Your task to perform on an android device: set default search engine in the chrome app Image 0: 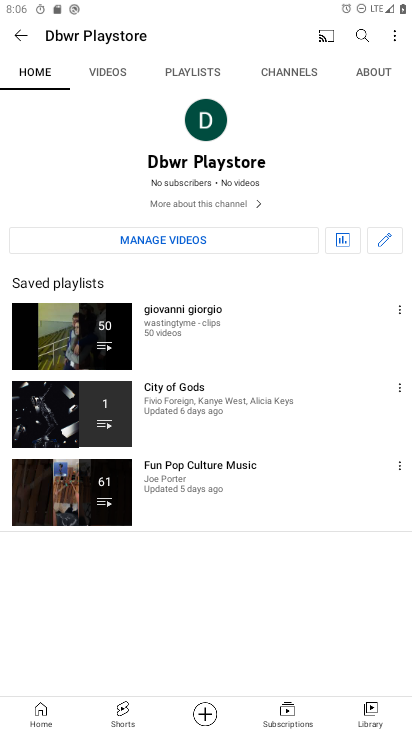
Step 0: press home button
Your task to perform on an android device: set default search engine in the chrome app Image 1: 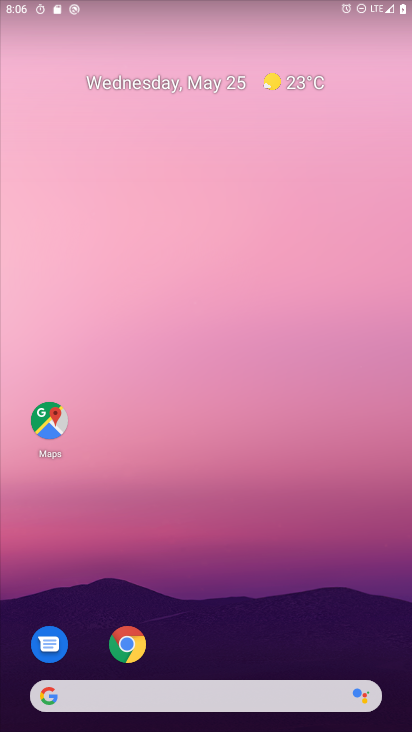
Step 1: drag from (351, 645) to (318, 53)
Your task to perform on an android device: set default search engine in the chrome app Image 2: 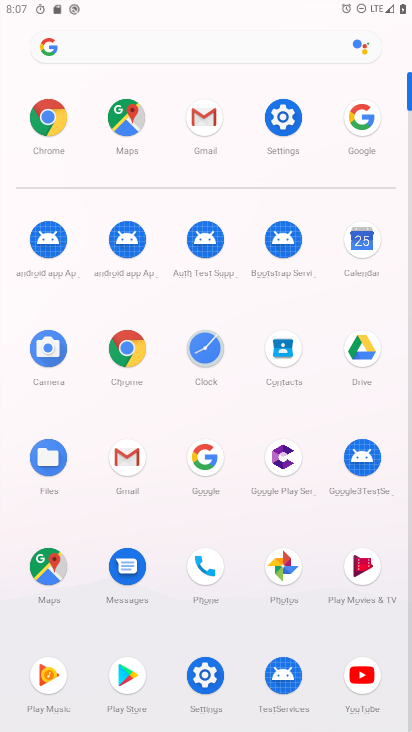
Step 2: click (139, 346)
Your task to perform on an android device: set default search engine in the chrome app Image 3: 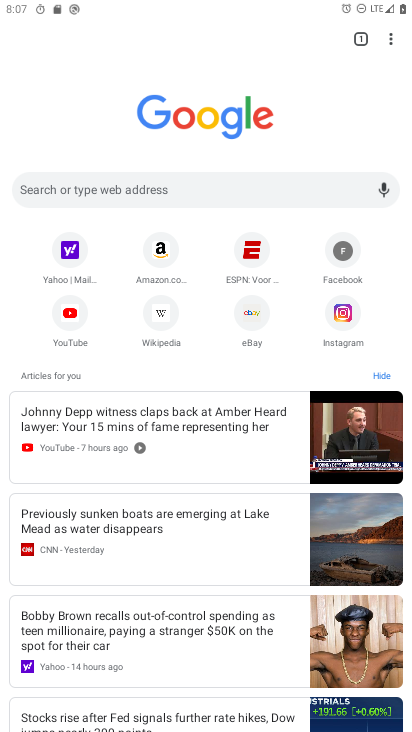
Step 3: click (391, 35)
Your task to perform on an android device: set default search engine in the chrome app Image 4: 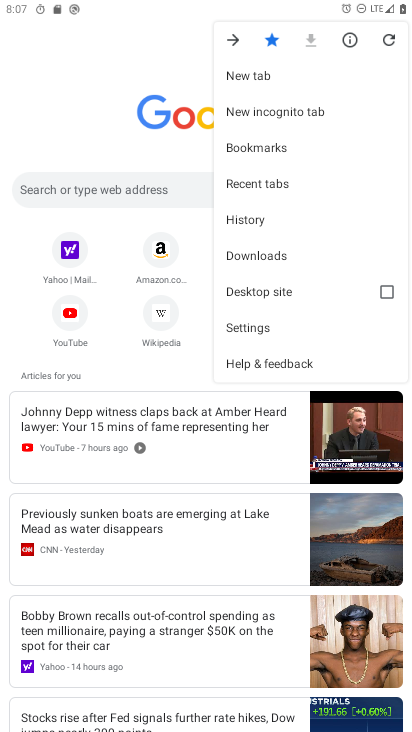
Step 4: click (273, 331)
Your task to perform on an android device: set default search engine in the chrome app Image 5: 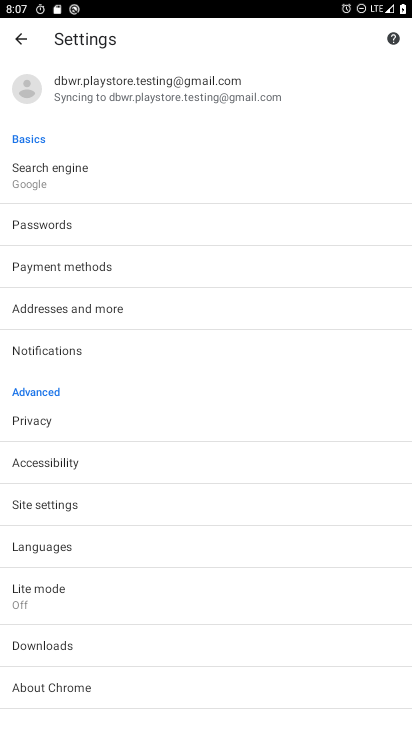
Step 5: click (110, 180)
Your task to perform on an android device: set default search engine in the chrome app Image 6: 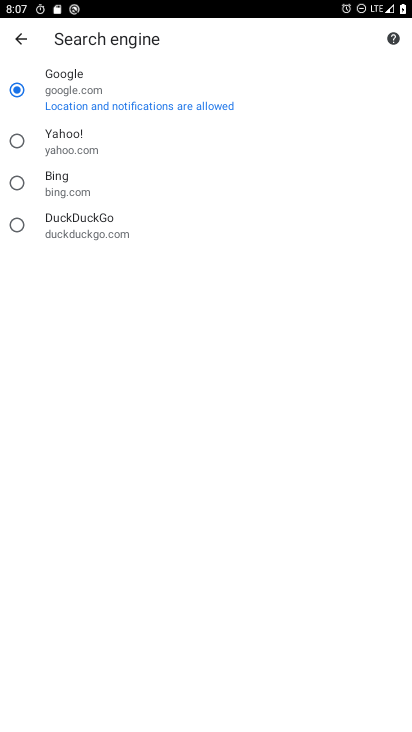
Step 6: click (107, 178)
Your task to perform on an android device: set default search engine in the chrome app Image 7: 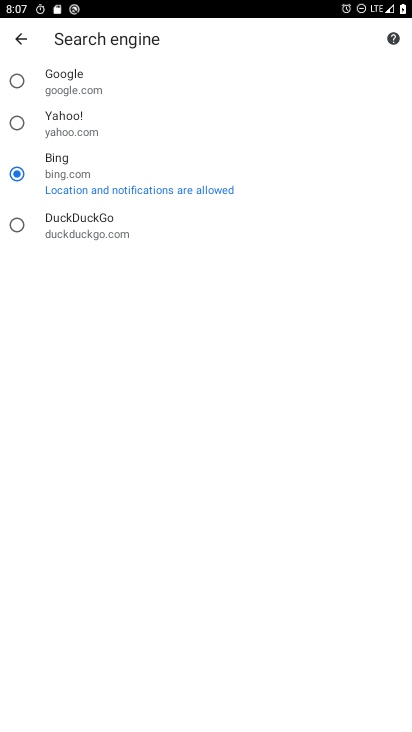
Step 7: task complete